Your task to perform on an android device: change keyboard looks Image 0: 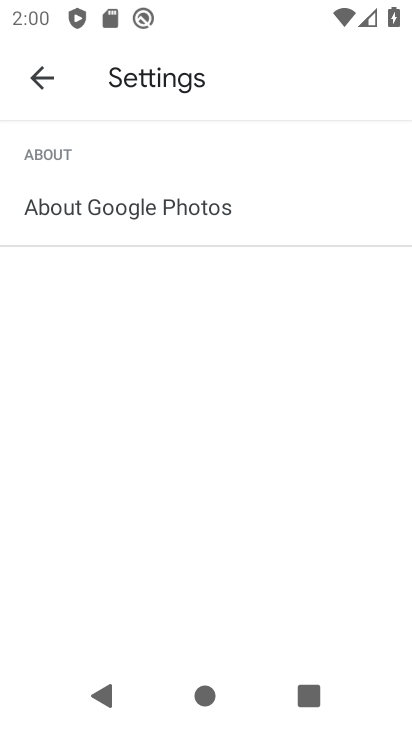
Step 0: press home button
Your task to perform on an android device: change keyboard looks Image 1: 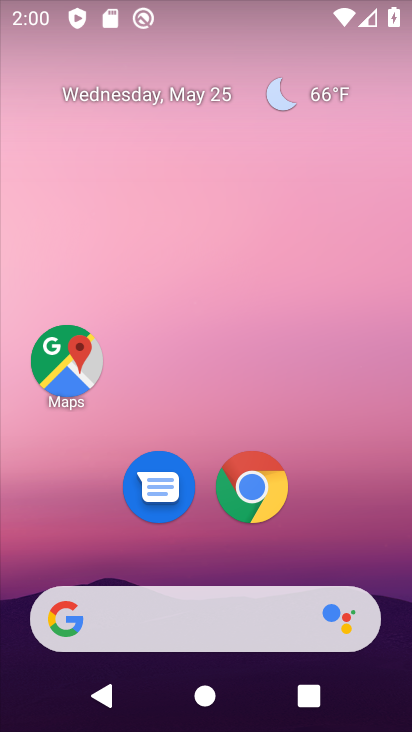
Step 1: drag from (231, 566) to (296, 96)
Your task to perform on an android device: change keyboard looks Image 2: 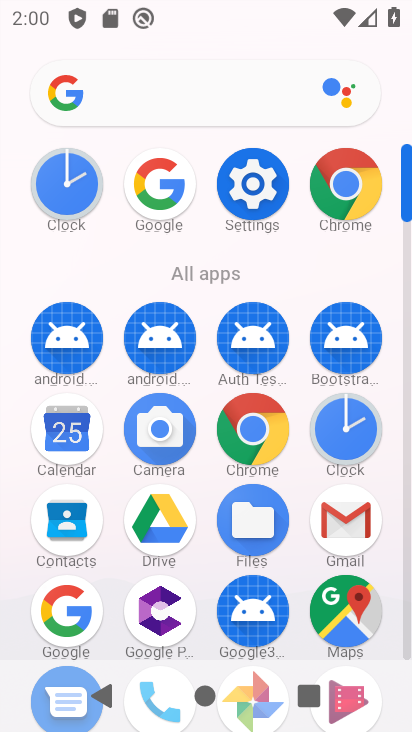
Step 2: click (241, 186)
Your task to perform on an android device: change keyboard looks Image 3: 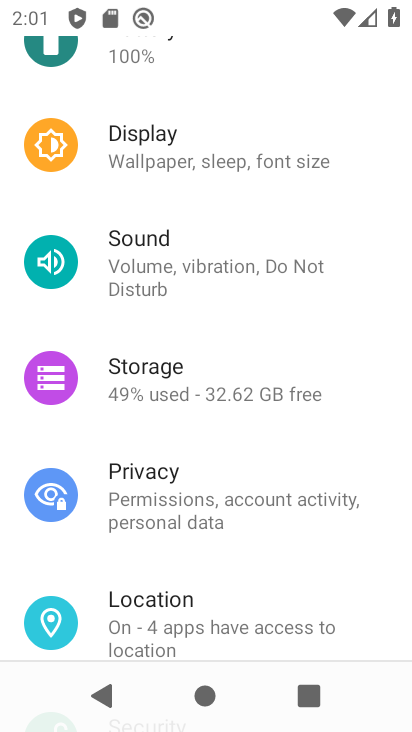
Step 3: click (217, 225)
Your task to perform on an android device: change keyboard looks Image 4: 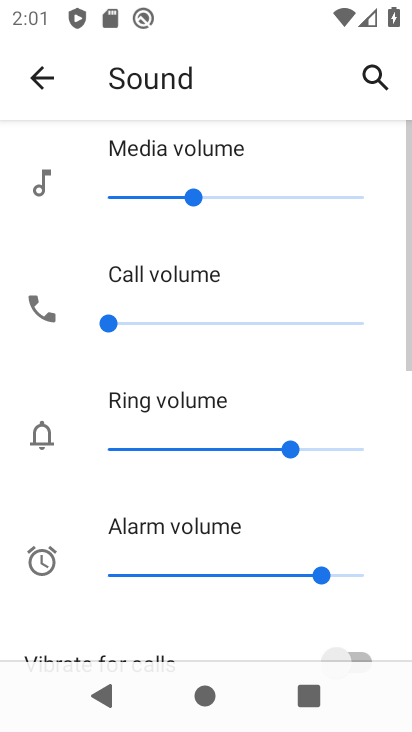
Step 4: click (38, 71)
Your task to perform on an android device: change keyboard looks Image 5: 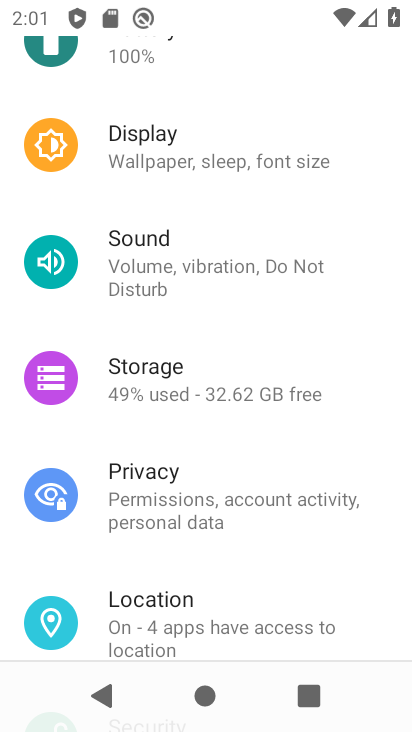
Step 5: drag from (164, 613) to (222, 156)
Your task to perform on an android device: change keyboard looks Image 6: 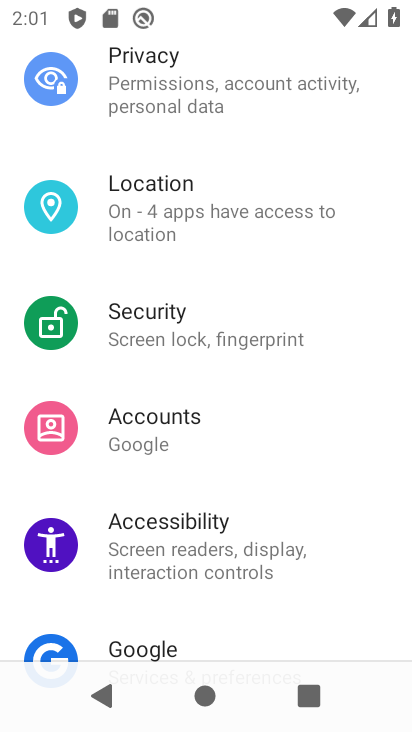
Step 6: drag from (172, 594) to (215, 348)
Your task to perform on an android device: change keyboard looks Image 7: 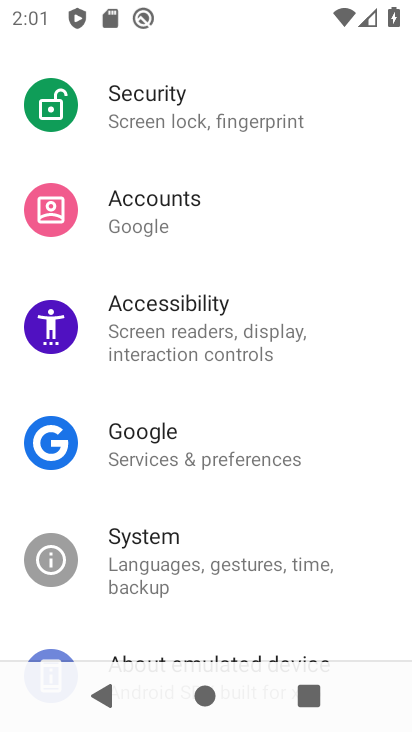
Step 7: click (182, 559)
Your task to perform on an android device: change keyboard looks Image 8: 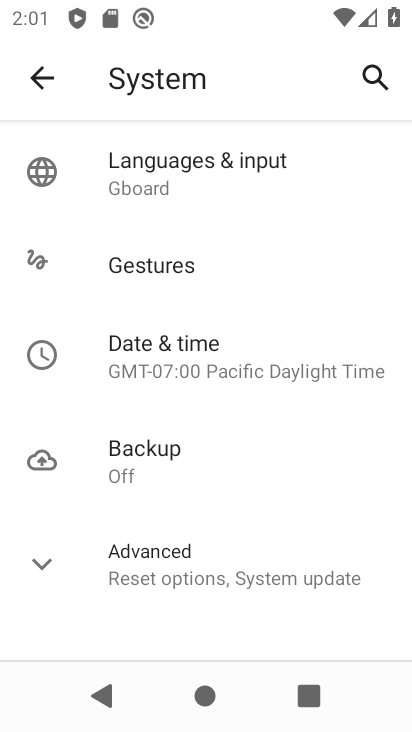
Step 8: click (141, 178)
Your task to perform on an android device: change keyboard looks Image 9: 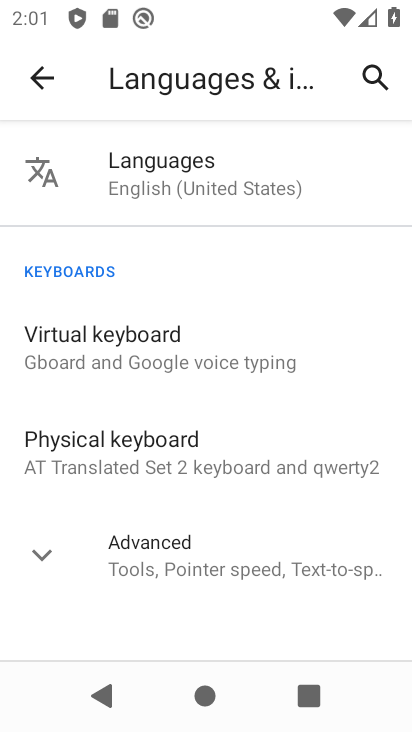
Step 9: click (65, 356)
Your task to perform on an android device: change keyboard looks Image 10: 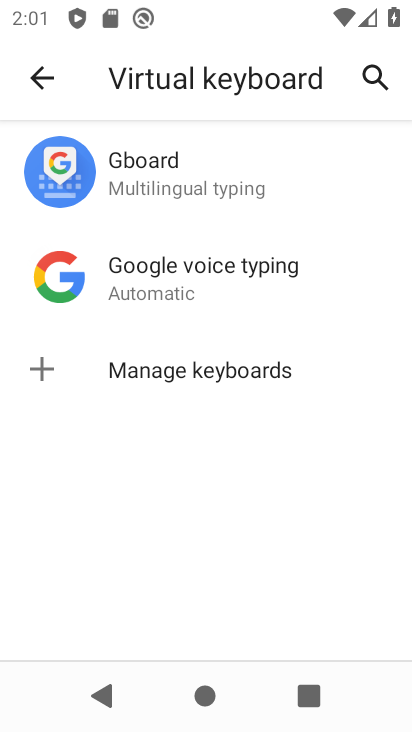
Step 10: click (107, 166)
Your task to perform on an android device: change keyboard looks Image 11: 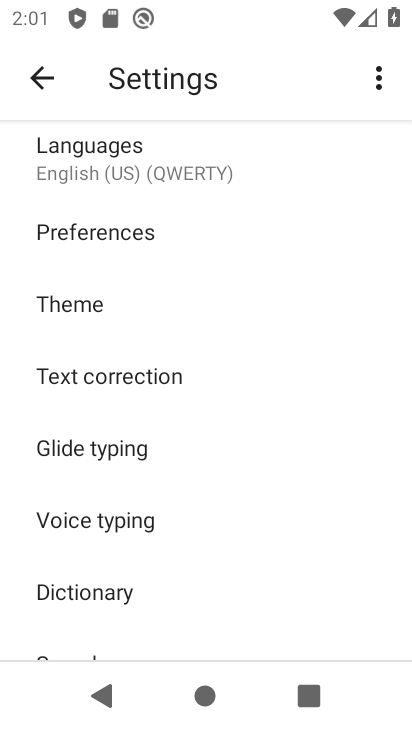
Step 11: click (74, 308)
Your task to perform on an android device: change keyboard looks Image 12: 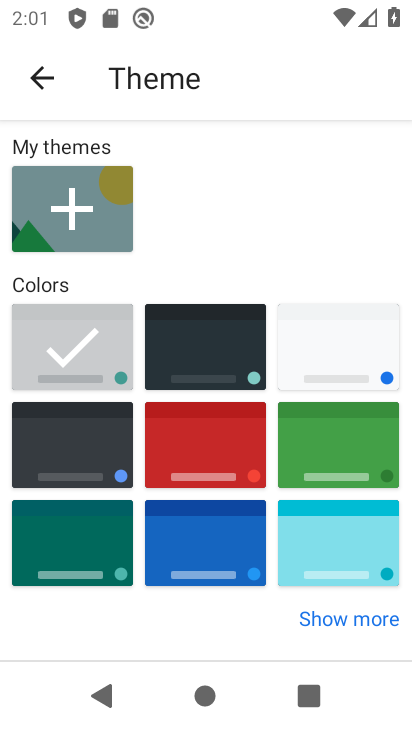
Step 12: click (201, 351)
Your task to perform on an android device: change keyboard looks Image 13: 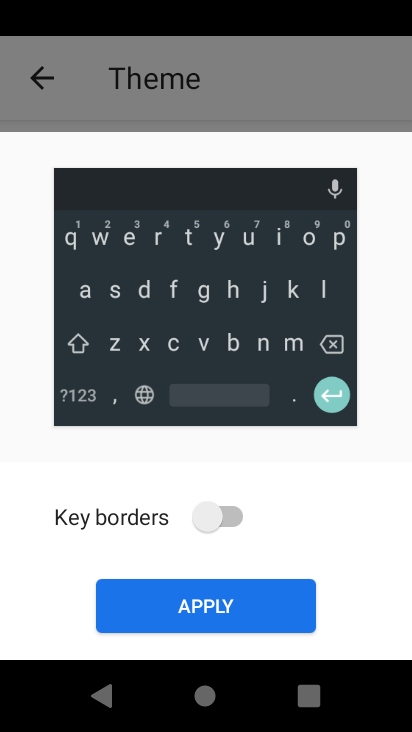
Step 13: click (217, 605)
Your task to perform on an android device: change keyboard looks Image 14: 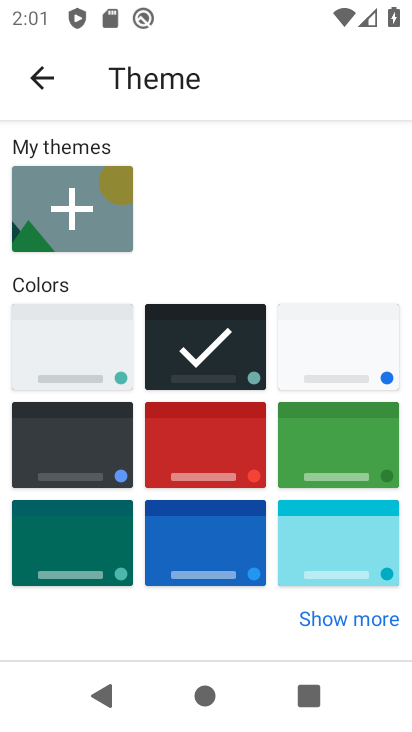
Step 14: task complete